Your task to perform on an android device: turn on data saver in the chrome app Image 0: 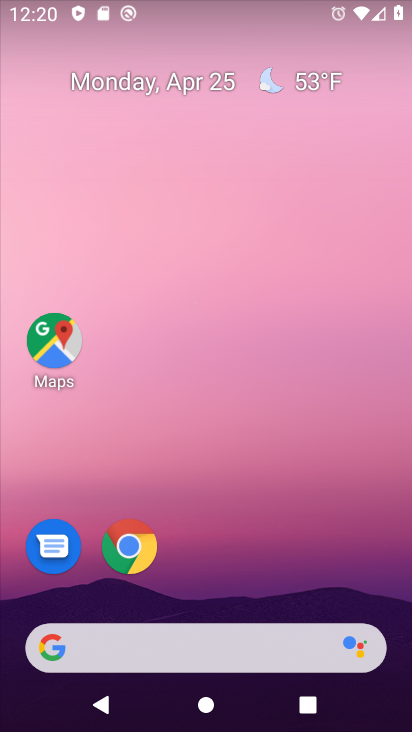
Step 0: click (132, 547)
Your task to perform on an android device: turn on data saver in the chrome app Image 1: 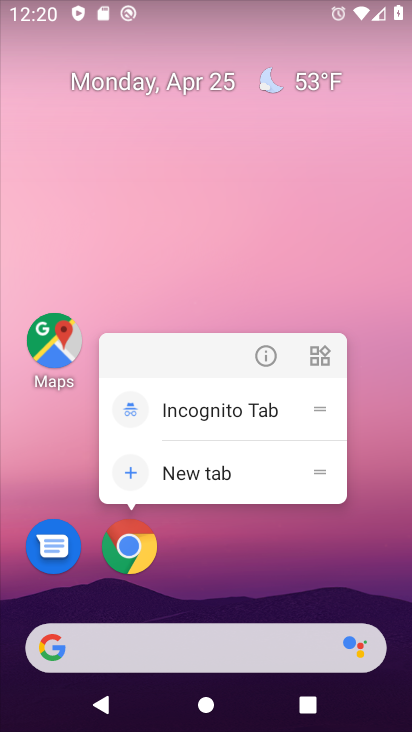
Step 1: click (139, 545)
Your task to perform on an android device: turn on data saver in the chrome app Image 2: 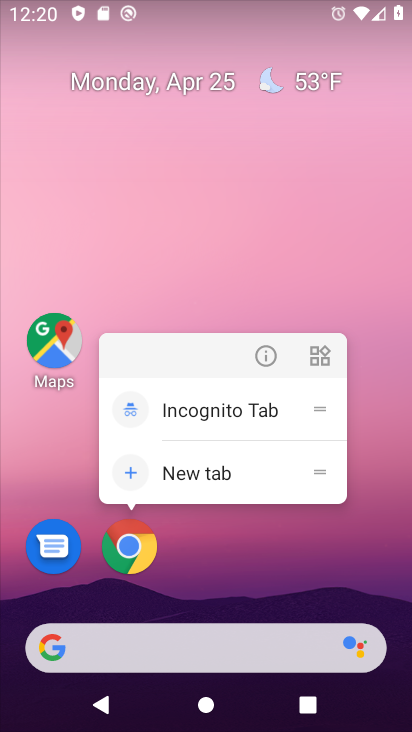
Step 2: click (139, 545)
Your task to perform on an android device: turn on data saver in the chrome app Image 3: 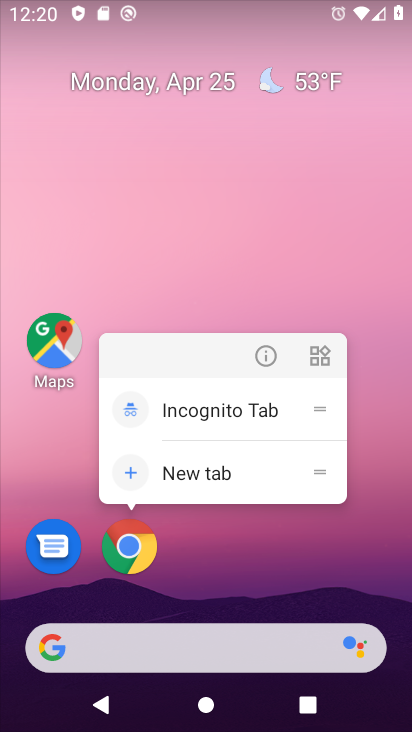
Step 3: click (139, 545)
Your task to perform on an android device: turn on data saver in the chrome app Image 4: 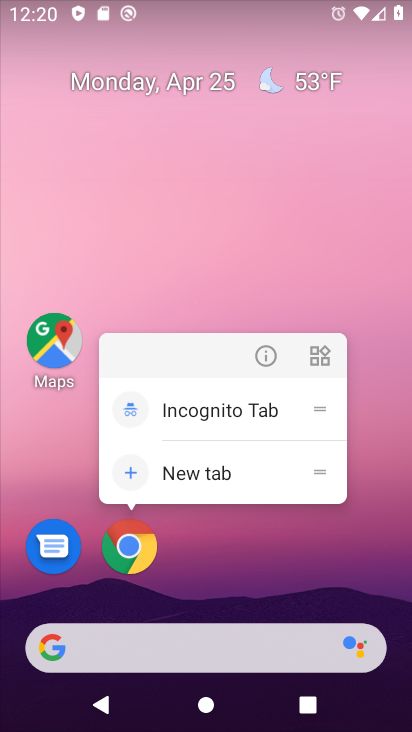
Step 4: click (139, 545)
Your task to perform on an android device: turn on data saver in the chrome app Image 5: 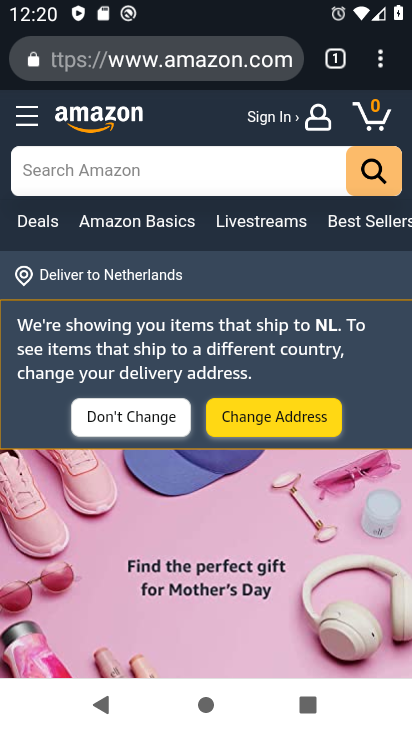
Step 5: drag from (382, 62) to (211, 577)
Your task to perform on an android device: turn on data saver in the chrome app Image 6: 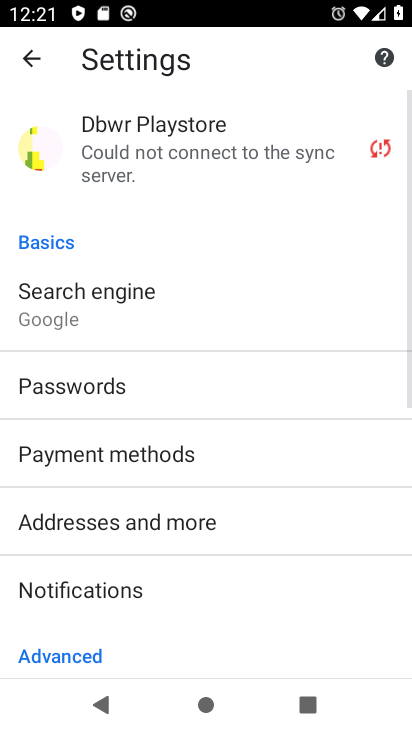
Step 6: drag from (188, 586) to (208, 262)
Your task to perform on an android device: turn on data saver in the chrome app Image 7: 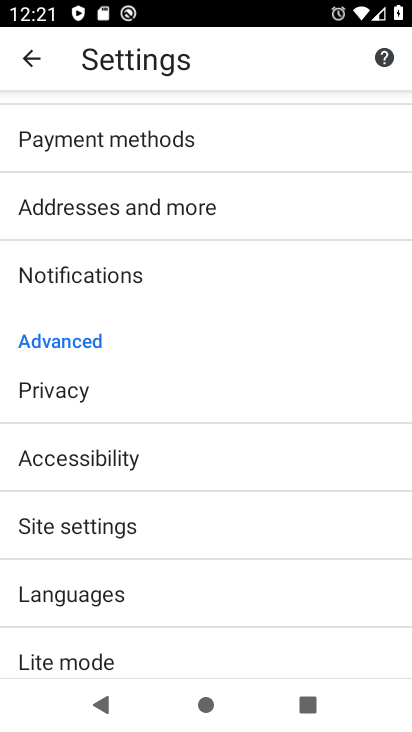
Step 7: drag from (205, 518) to (228, 430)
Your task to perform on an android device: turn on data saver in the chrome app Image 8: 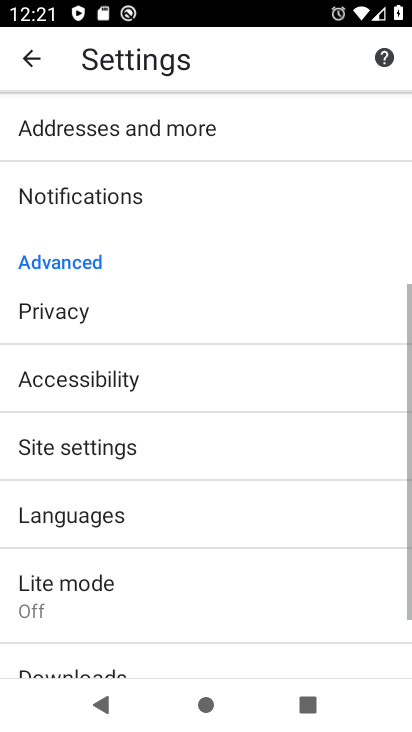
Step 8: click (98, 579)
Your task to perform on an android device: turn on data saver in the chrome app Image 9: 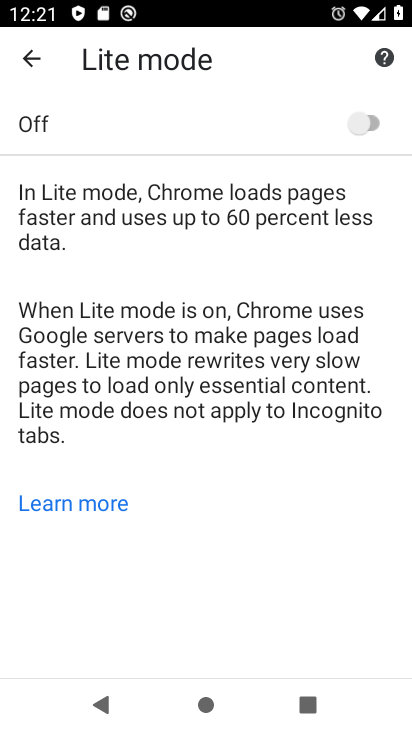
Step 9: click (378, 118)
Your task to perform on an android device: turn on data saver in the chrome app Image 10: 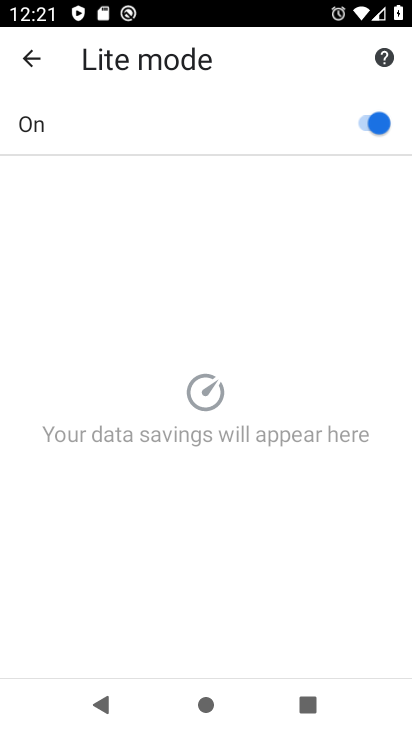
Step 10: task complete